Your task to perform on an android device: install app "Fetch Rewards" Image 0: 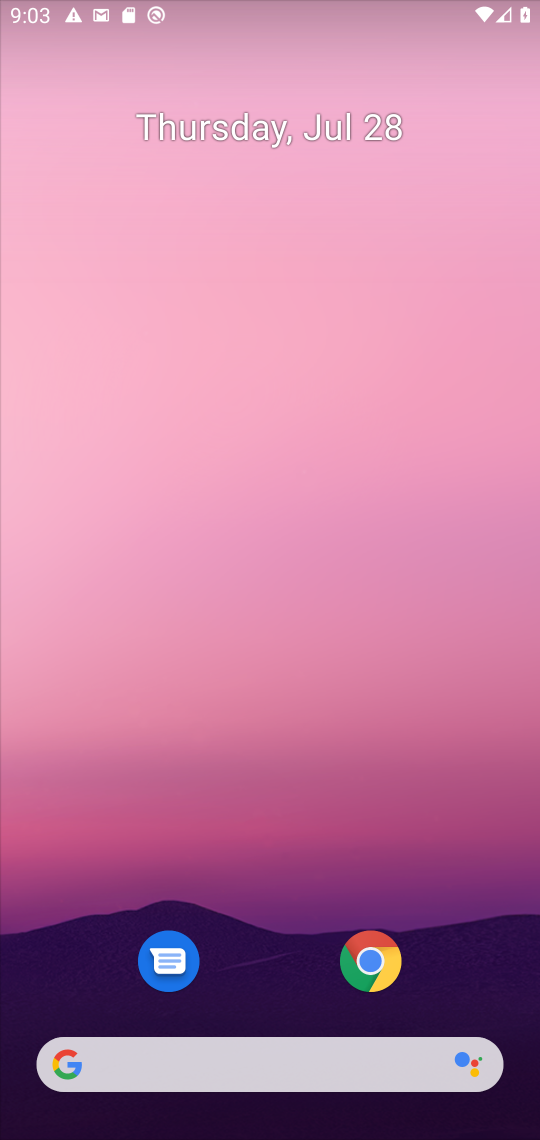
Step 0: click (436, 76)
Your task to perform on an android device: install app "Fetch Rewards" Image 1: 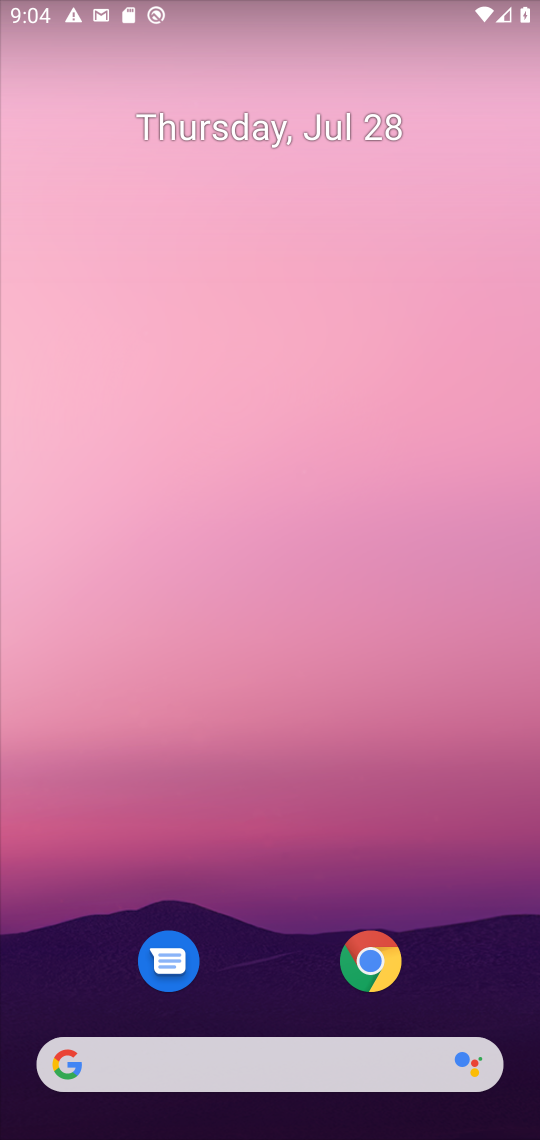
Step 1: drag from (278, 993) to (283, 64)
Your task to perform on an android device: install app "Fetch Rewards" Image 2: 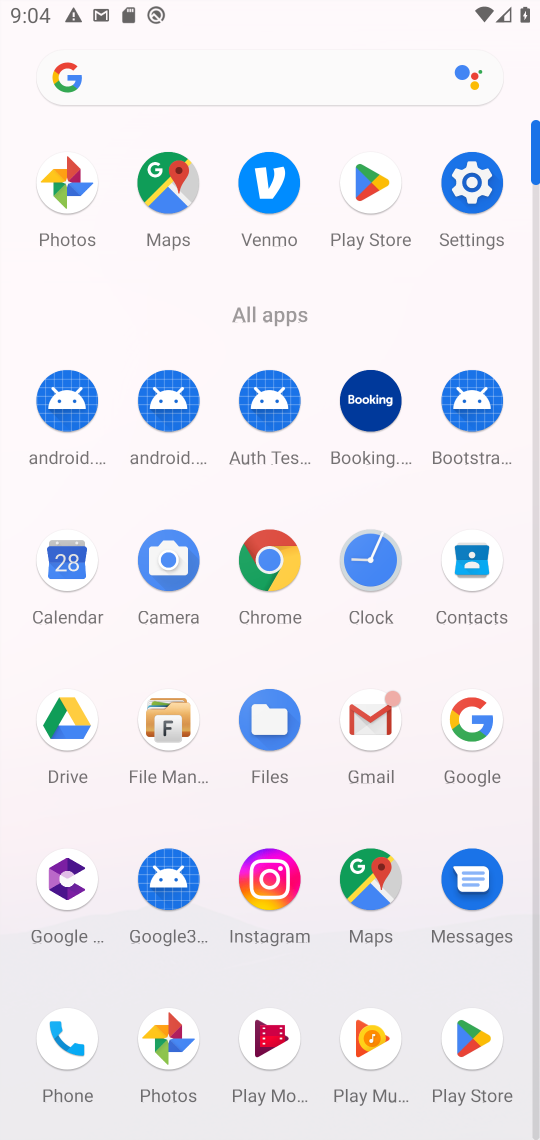
Step 2: click (390, 179)
Your task to perform on an android device: install app "Fetch Rewards" Image 3: 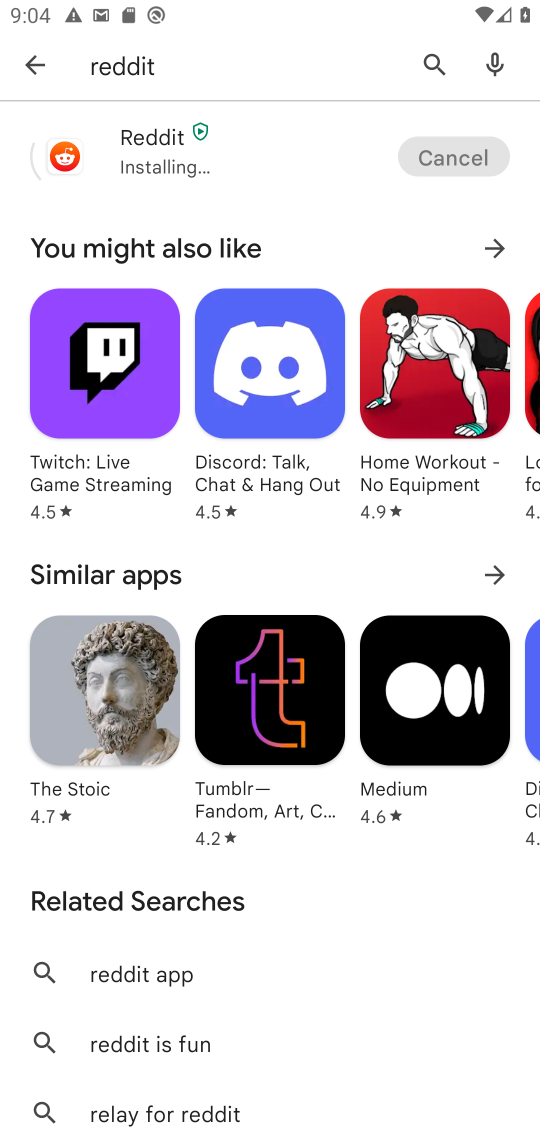
Step 3: click (441, 62)
Your task to perform on an android device: install app "Fetch Rewards" Image 4: 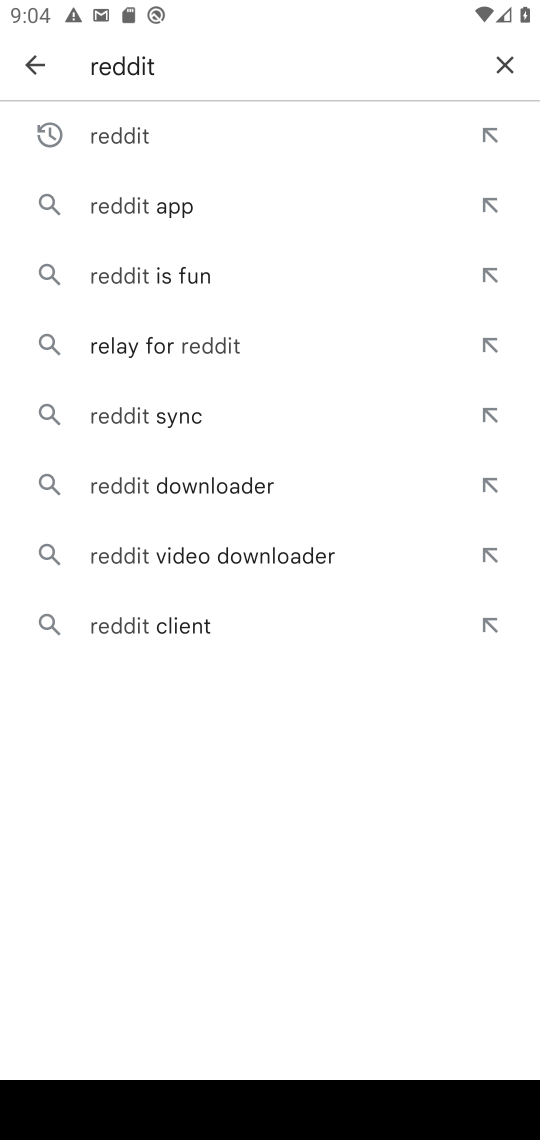
Step 4: click (496, 65)
Your task to perform on an android device: install app "Fetch Rewards" Image 5: 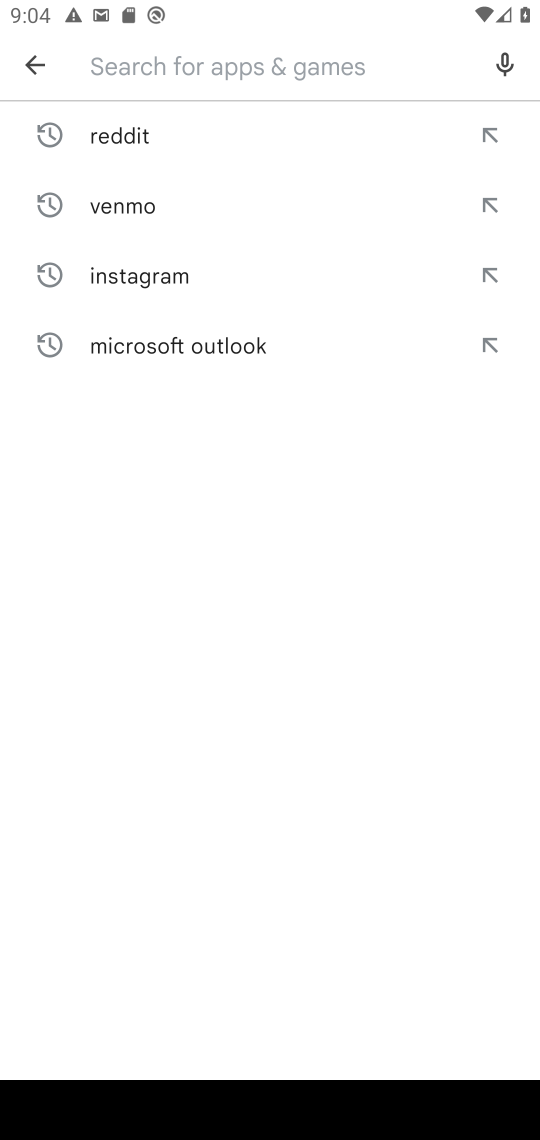
Step 5: type "fetch rewards"
Your task to perform on an android device: install app "Fetch Rewards" Image 6: 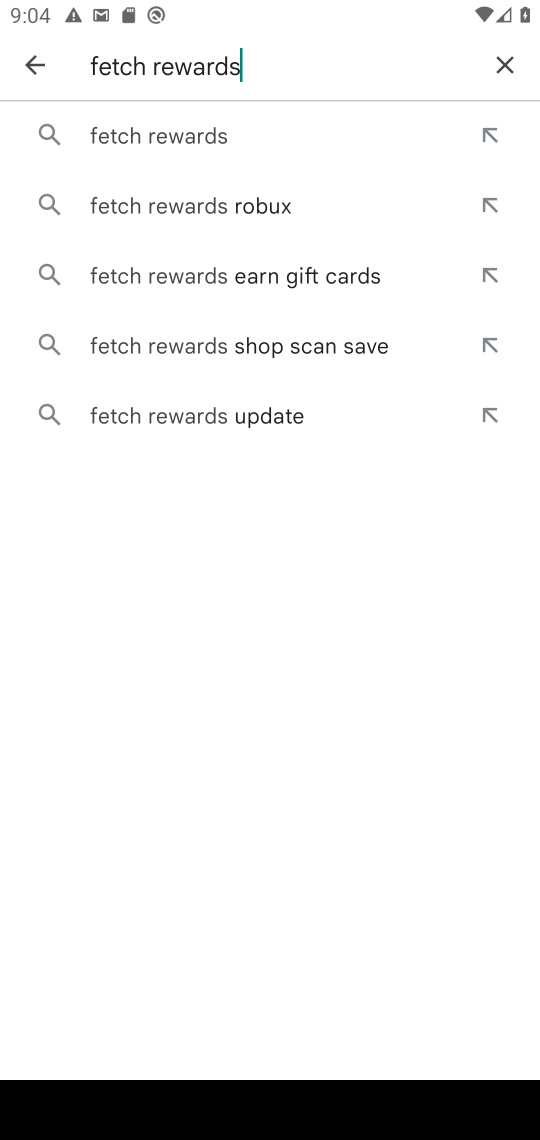
Step 6: click (171, 143)
Your task to perform on an android device: install app "Fetch Rewards" Image 7: 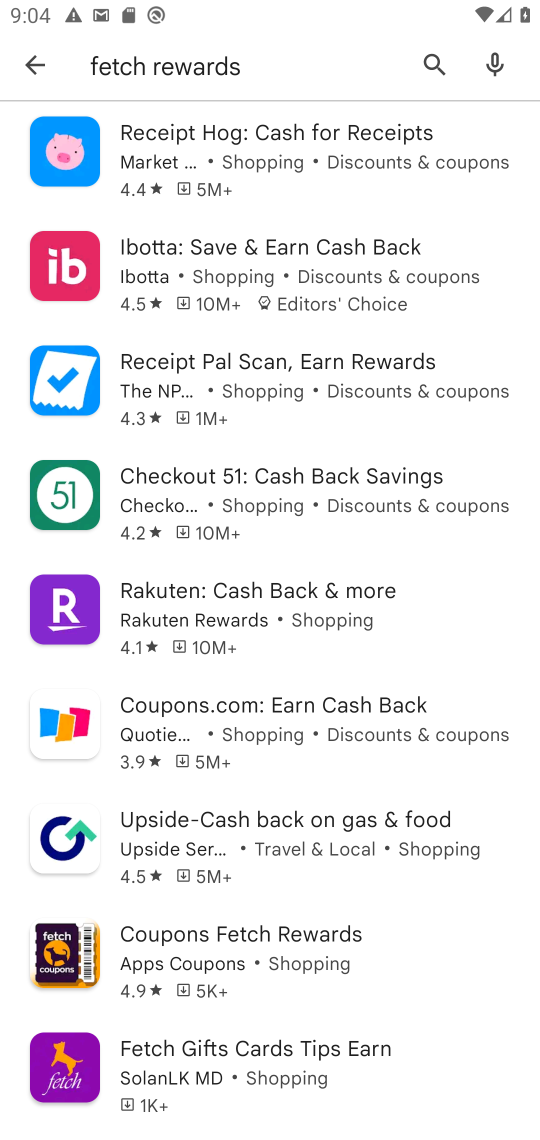
Step 7: task complete